Your task to perform on an android device: turn on showing notifications on the lock screen Image 0: 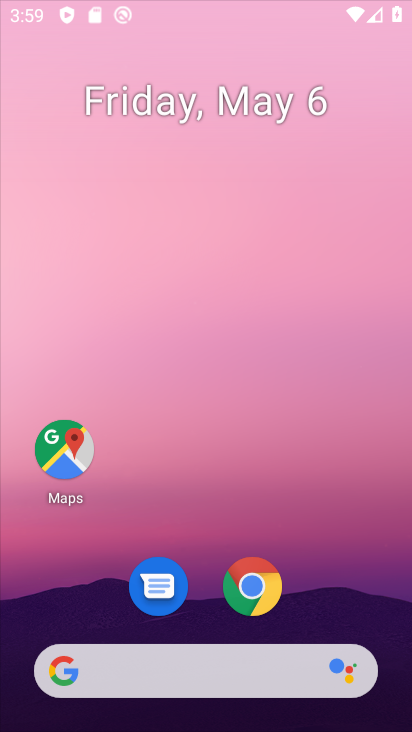
Step 0: drag from (265, 416) to (256, 233)
Your task to perform on an android device: turn on showing notifications on the lock screen Image 1: 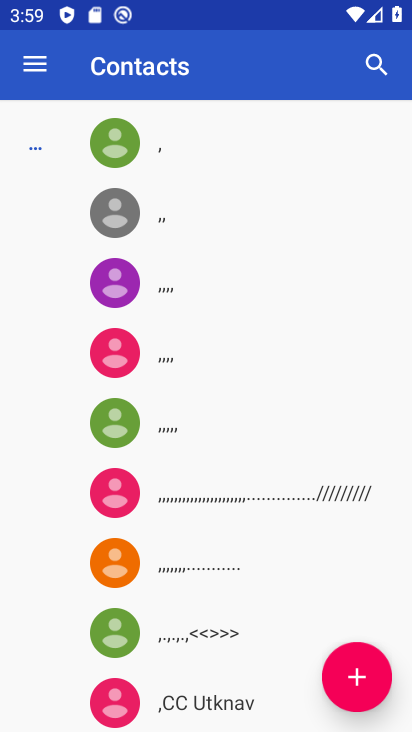
Step 1: drag from (216, 557) to (219, 495)
Your task to perform on an android device: turn on showing notifications on the lock screen Image 2: 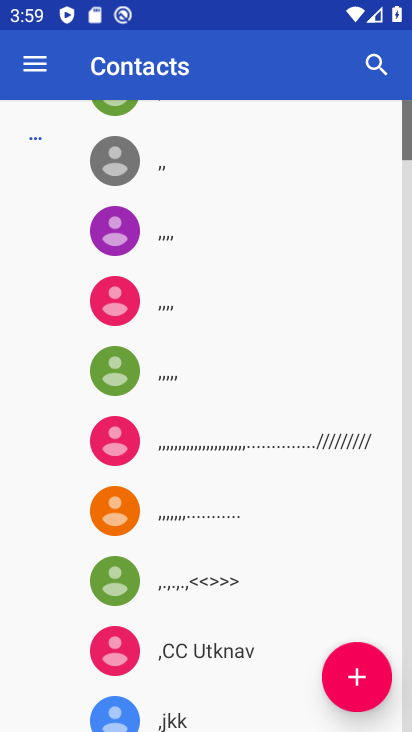
Step 2: press home button
Your task to perform on an android device: turn on showing notifications on the lock screen Image 3: 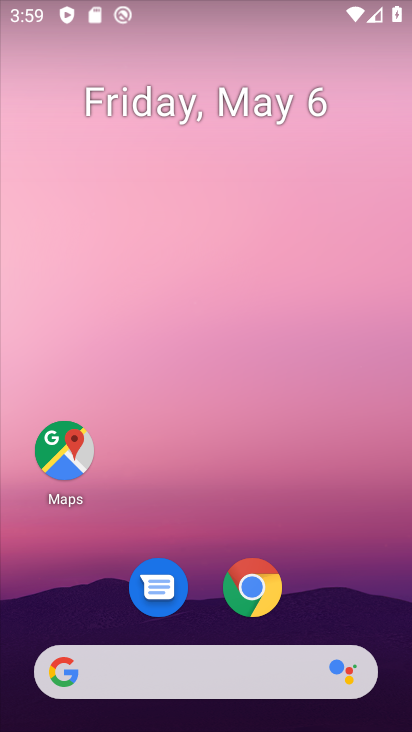
Step 3: drag from (304, 687) to (234, 277)
Your task to perform on an android device: turn on showing notifications on the lock screen Image 4: 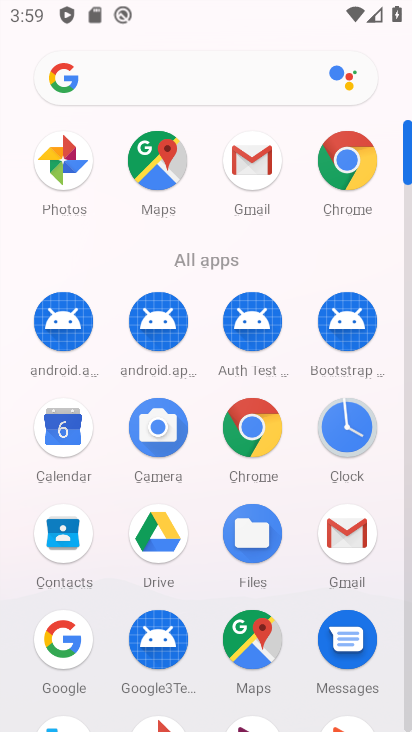
Step 4: drag from (192, 512) to (181, 322)
Your task to perform on an android device: turn on showing notifications on the lock screen Image 5: 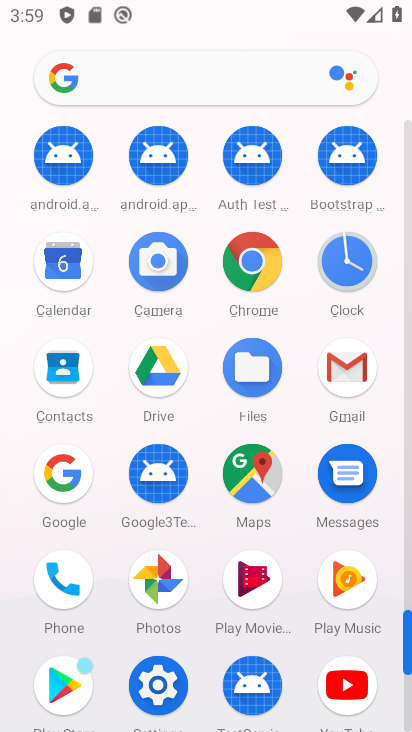
Step 5: click (160, 684)
Your task to perform on an android device: turn on showing notifications on the lock screen Image 6: 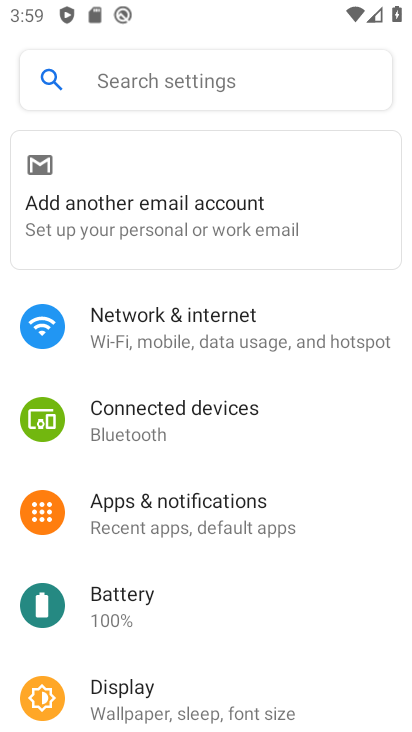
Step 6: click (156, 100)
Your task to perform on an android device: turn on showing notifications on the lock screen Image 7: 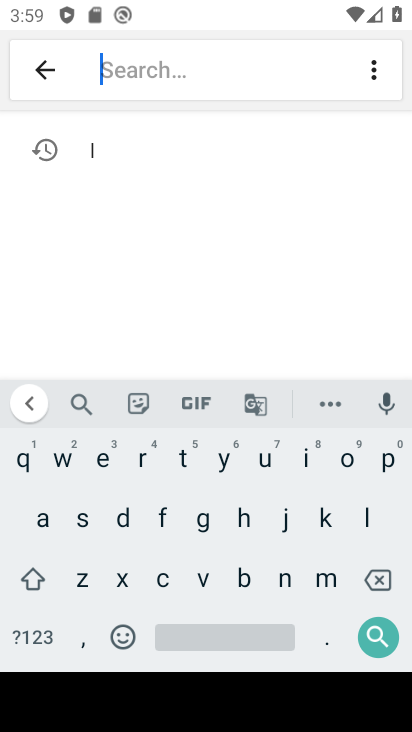
Step 7: click (361, 507)
Your task to perform on an android device: turn on showing notifications on the lock screen Image 8: 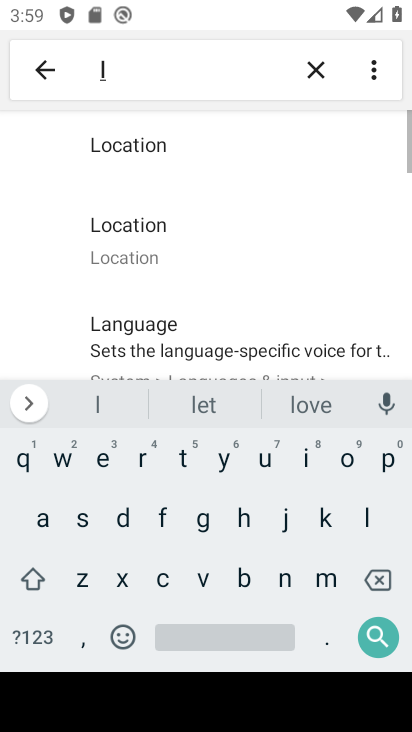
Step 8: click (347, 465)
Your task to perform on an android device: turn on showing notifications on the lock screen Image 9: 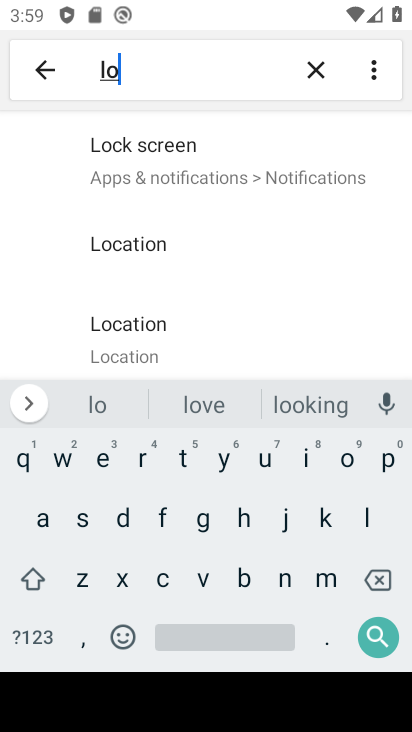
Step 9: click (180, 166)
Your task to perform on an android device: turn on showing notifications on the lock screen Image 10: 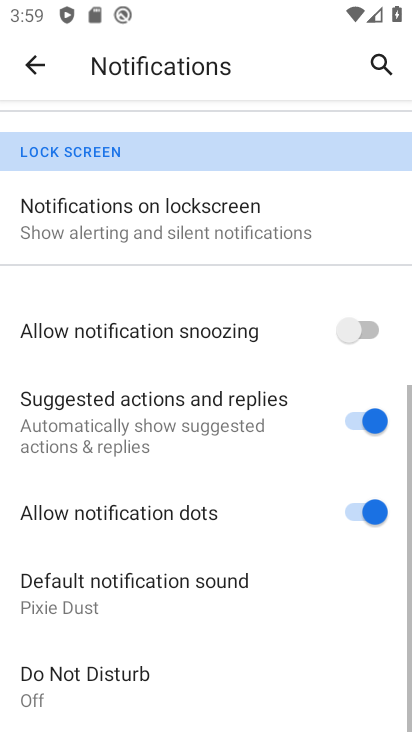
Step 10: click (187, 232)
Your task to perform on an android device: turn on showing notifications on the lock screen Image 11: 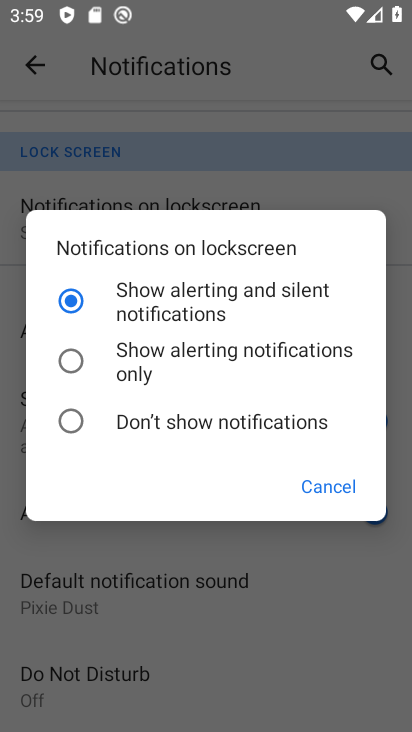
Step 11: task complete